Your task to perform on an android device: toggle airplane mode Image 0: 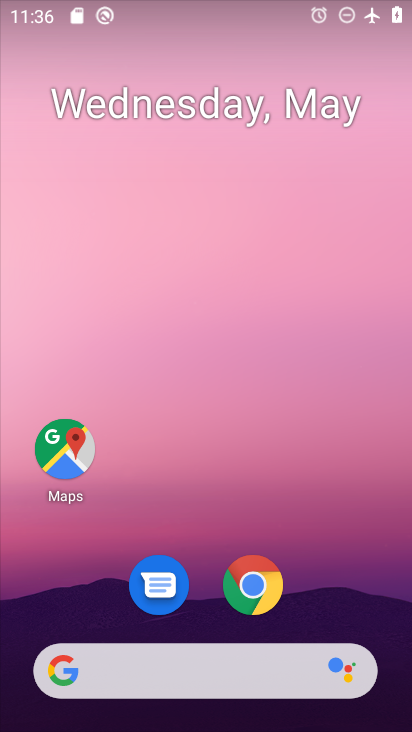
Step 0: drag from (228, 492) to (276, 26)
Your task to perform on an android device: toggle airplane mode Image 1: 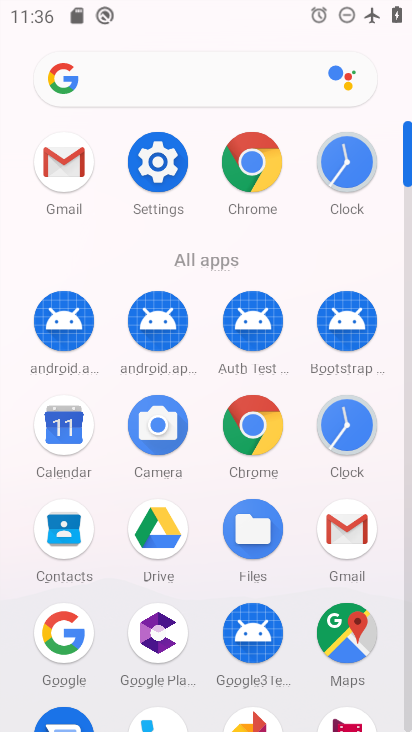
Step 1: click (171, 150)
Your task to perform on an android device: toggle airplane mode Image 2: 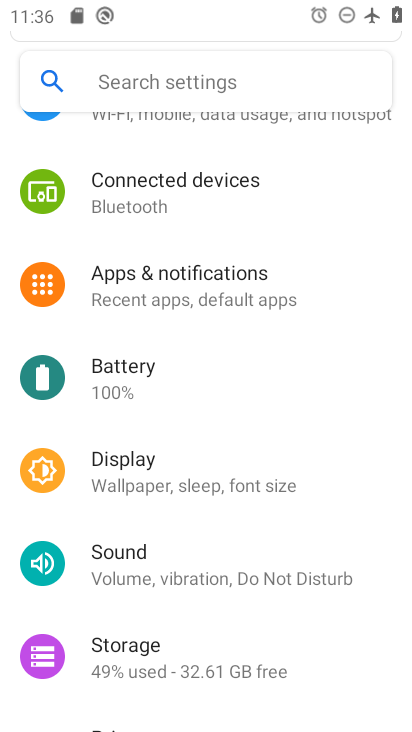
Step 2: drag from (247, 191) to (262, 491)
Your task to perform on an android device: toggle airplane mode Image 3: 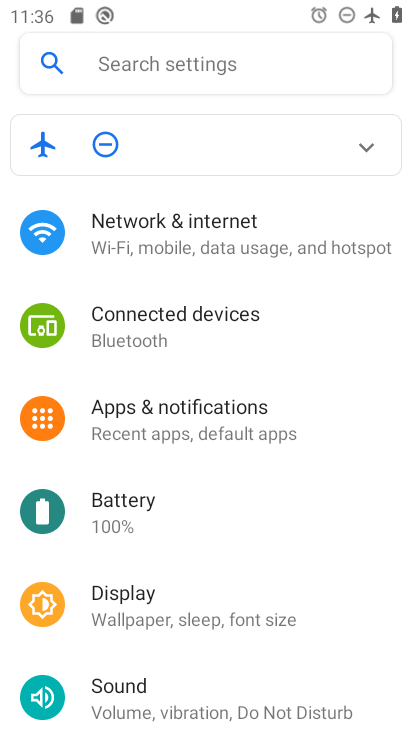
Step 3: click (269, 240)
Your task to perform on an android device: toggle airplane mode Image 4: 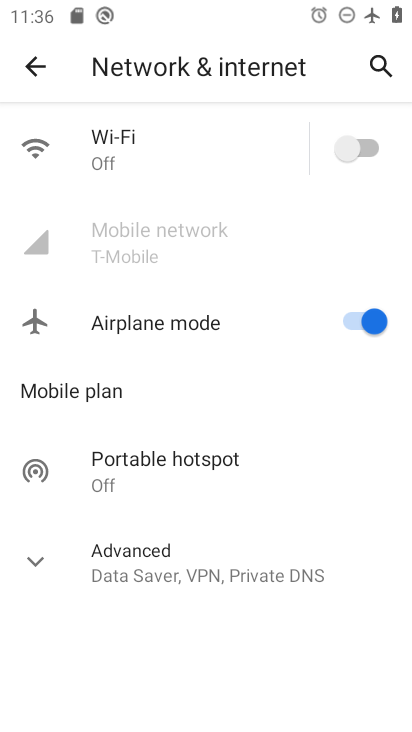
Step 4: click (342, 311)
Your task to perform on an android device: toggle airplane mode Image 5: 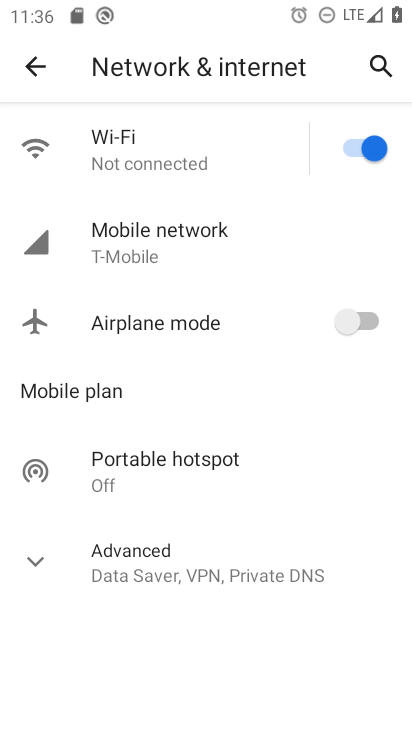
Step 5: task complete